Your task to perform on an android device: uninstall "Pinterest" Image 0: 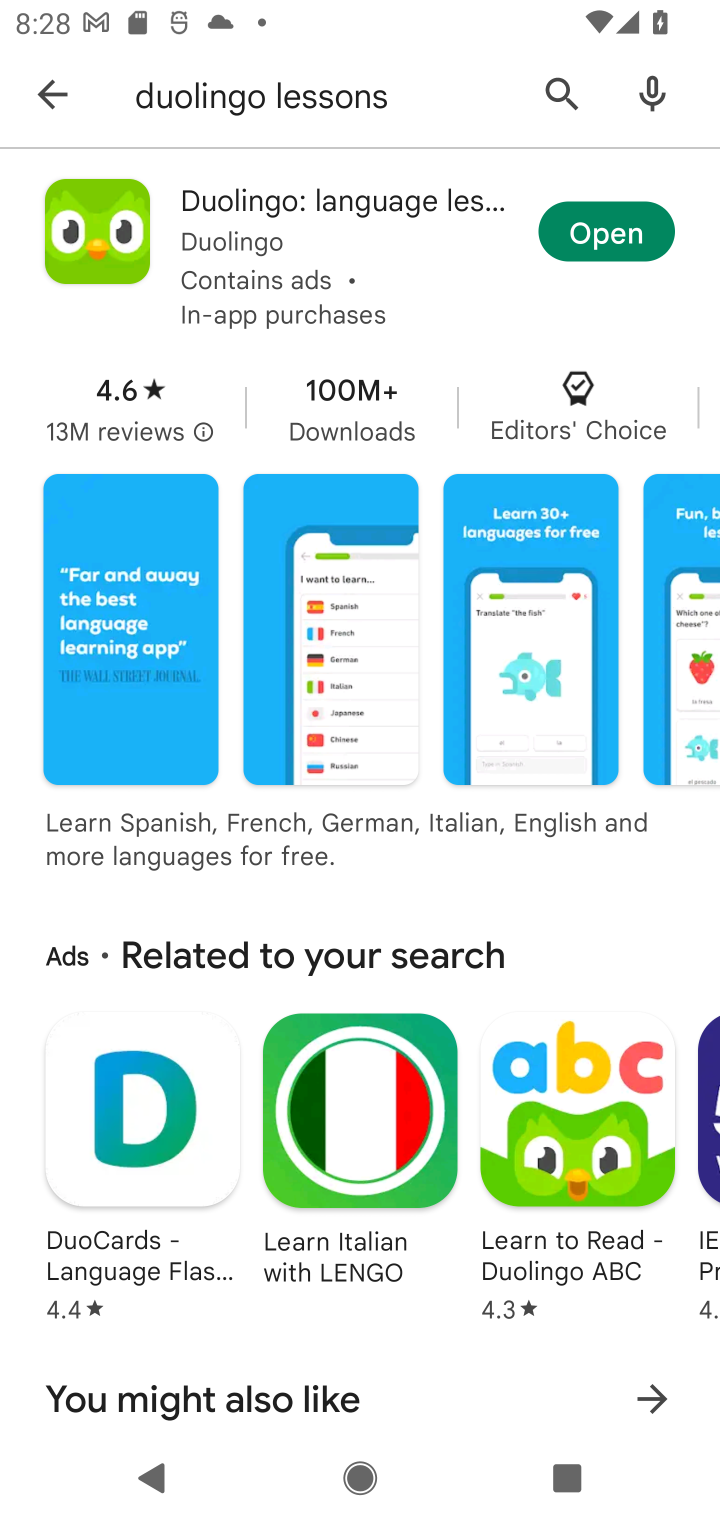
Step 0: click (571, 75)
Your task to perform on an android device: uninstall "Pinterest" Image 1: 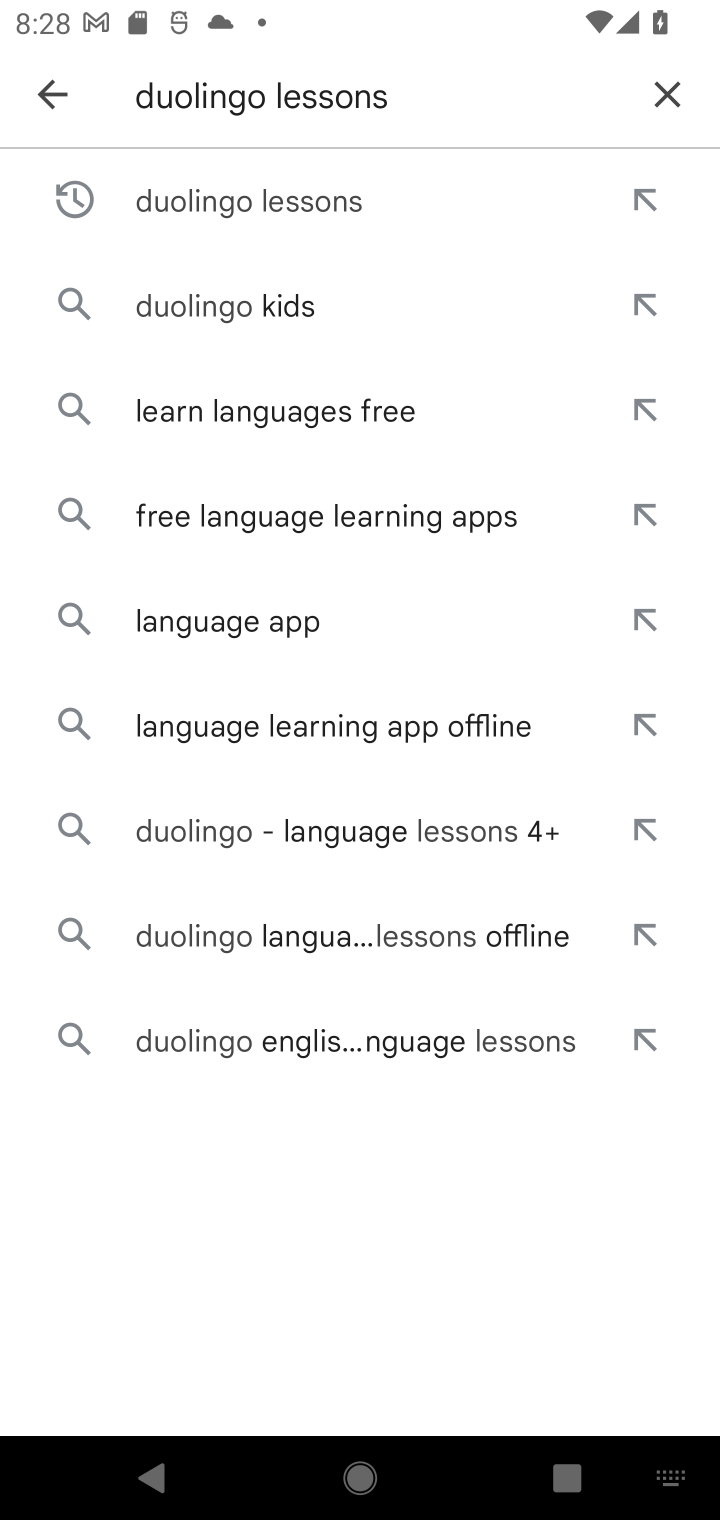
Step 1: click (680, 83)
Your task to perform on an android device: uninstall "Pinterest" Image 2: 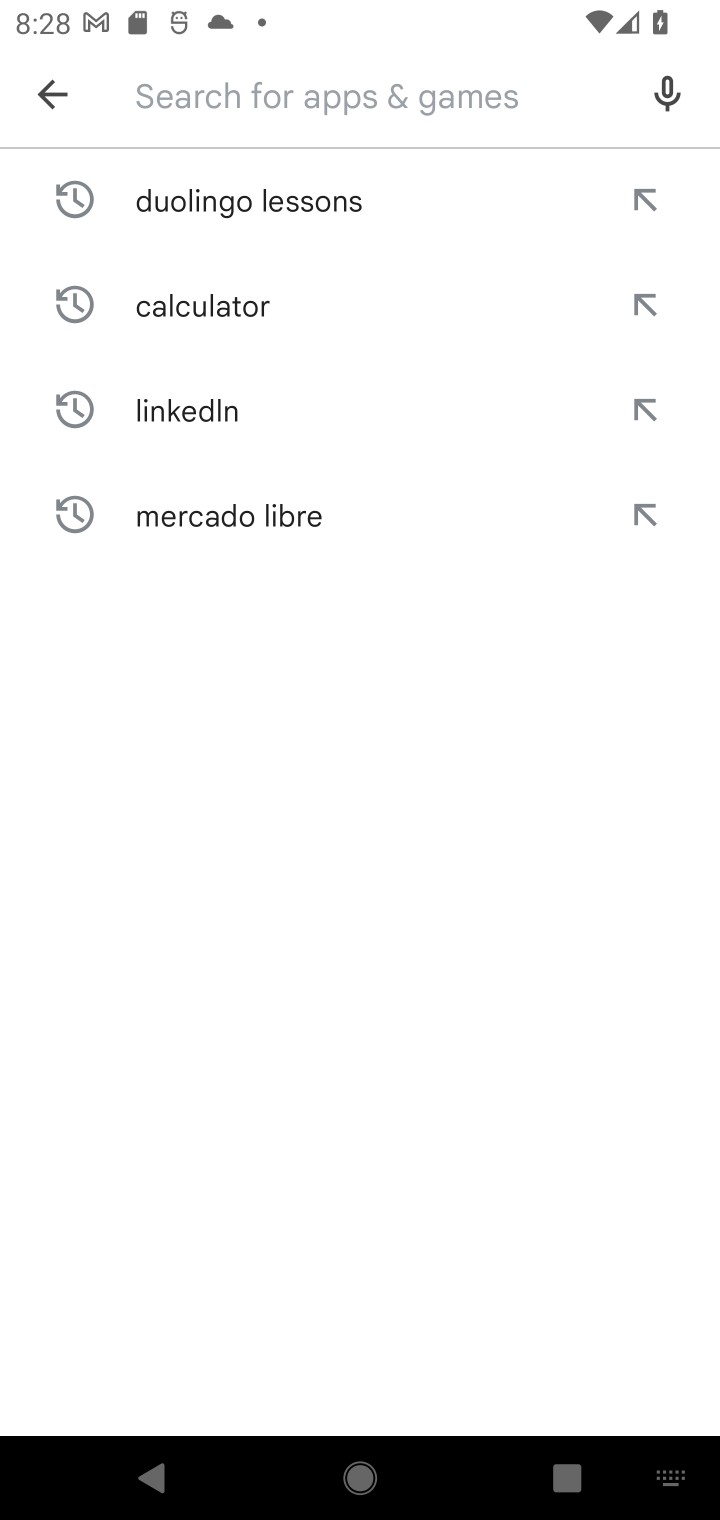
Step 2: click (260, 88)
Your task to perform on an android device: uninstall "Pinterest" Image 3: 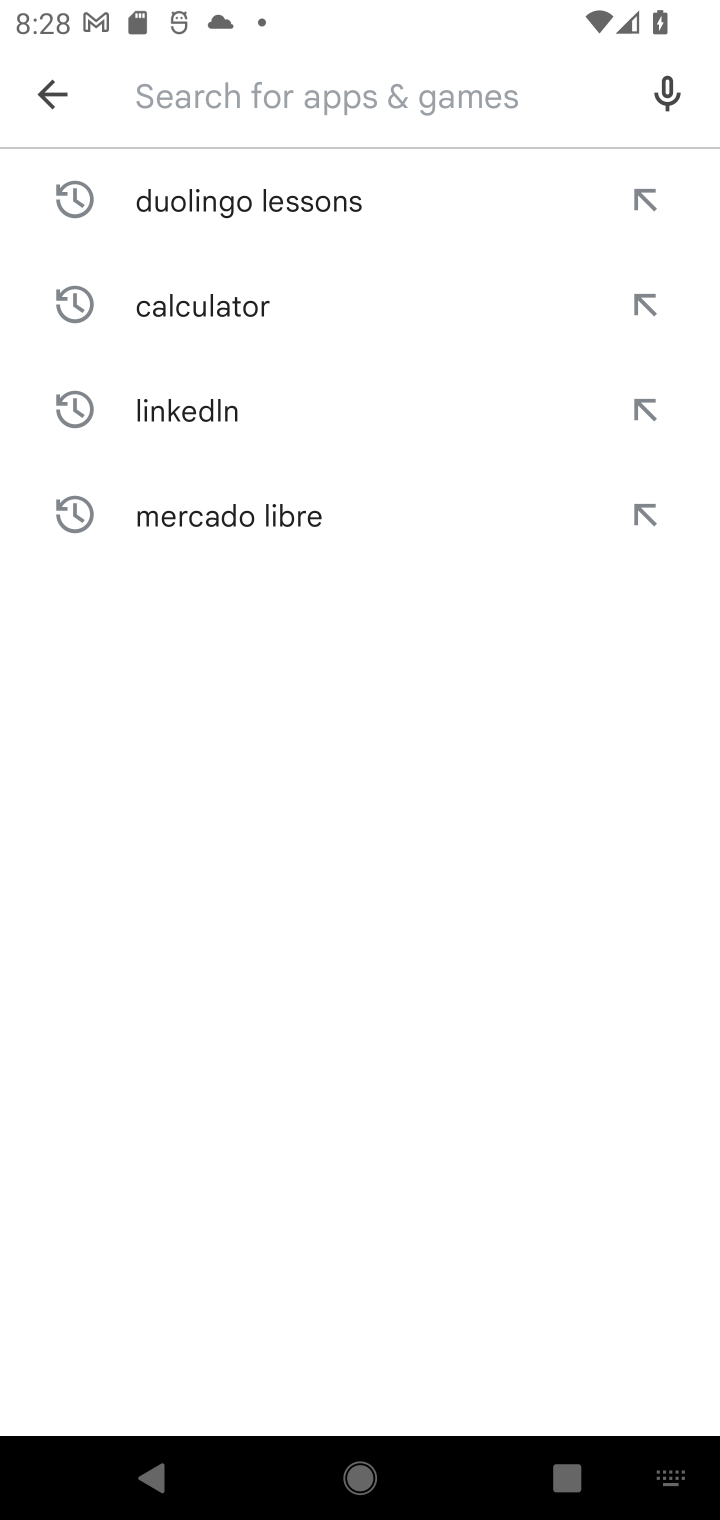
Step 3: type "pinterest"
Your task to perform on an android device: uninstall "Pinterest" Image 4: 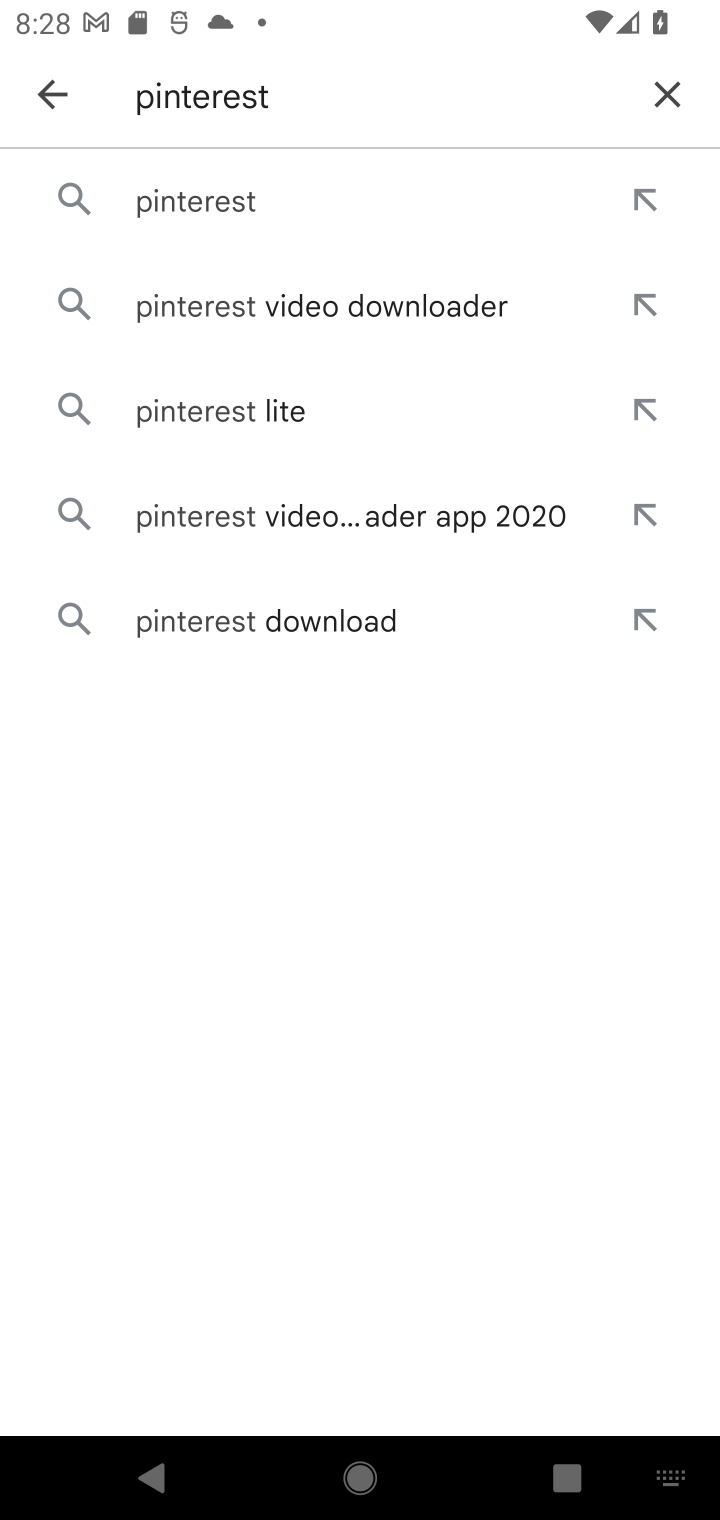
Step 4: click (198, 189)
Your task to perform on an android device: uninstall "Pinterest" Image 5: 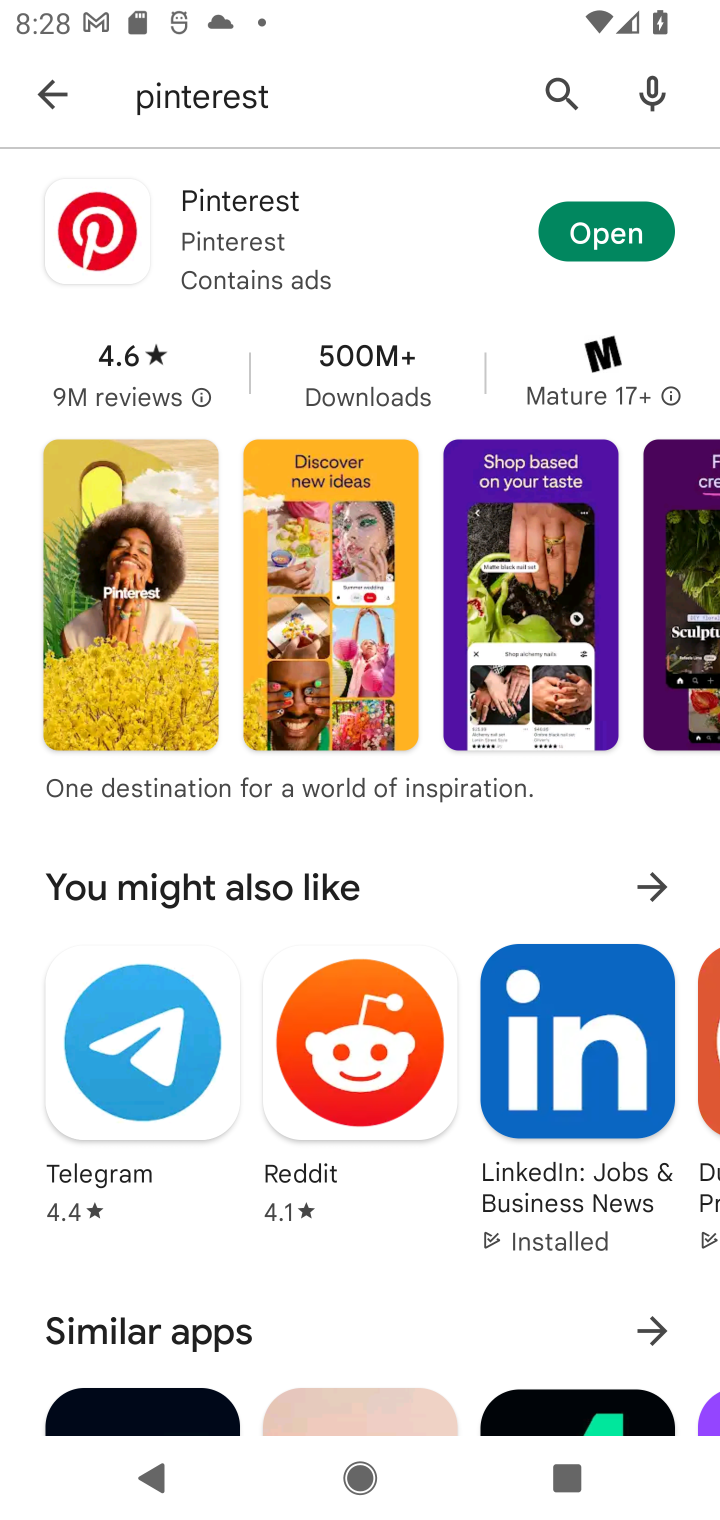
Step 5: click (293, 239)
Your task to perform on an android device: uninstall "Pinterest" Image 6: 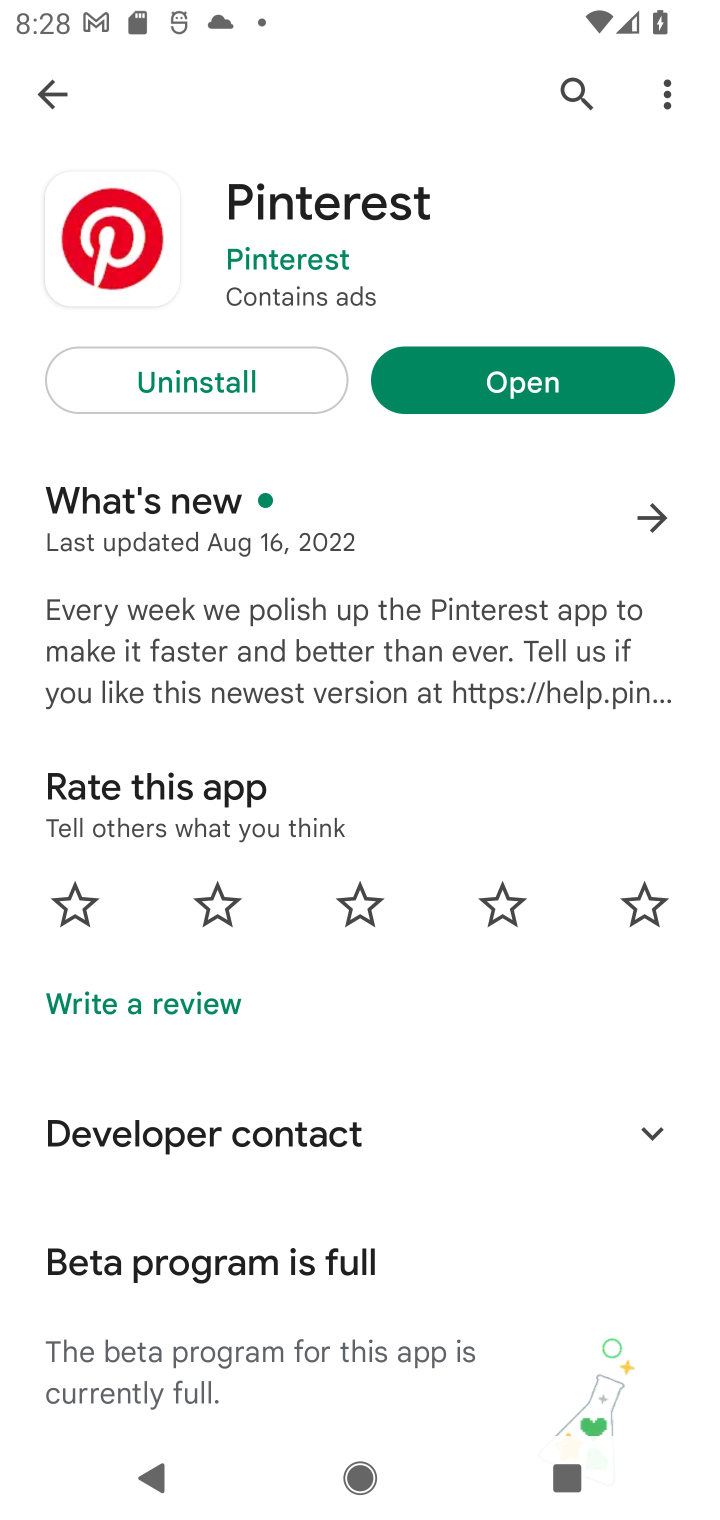
Step 6: click (198, 376)
Your task to perform on an android device: uninstall "Pinterest" Image 7: 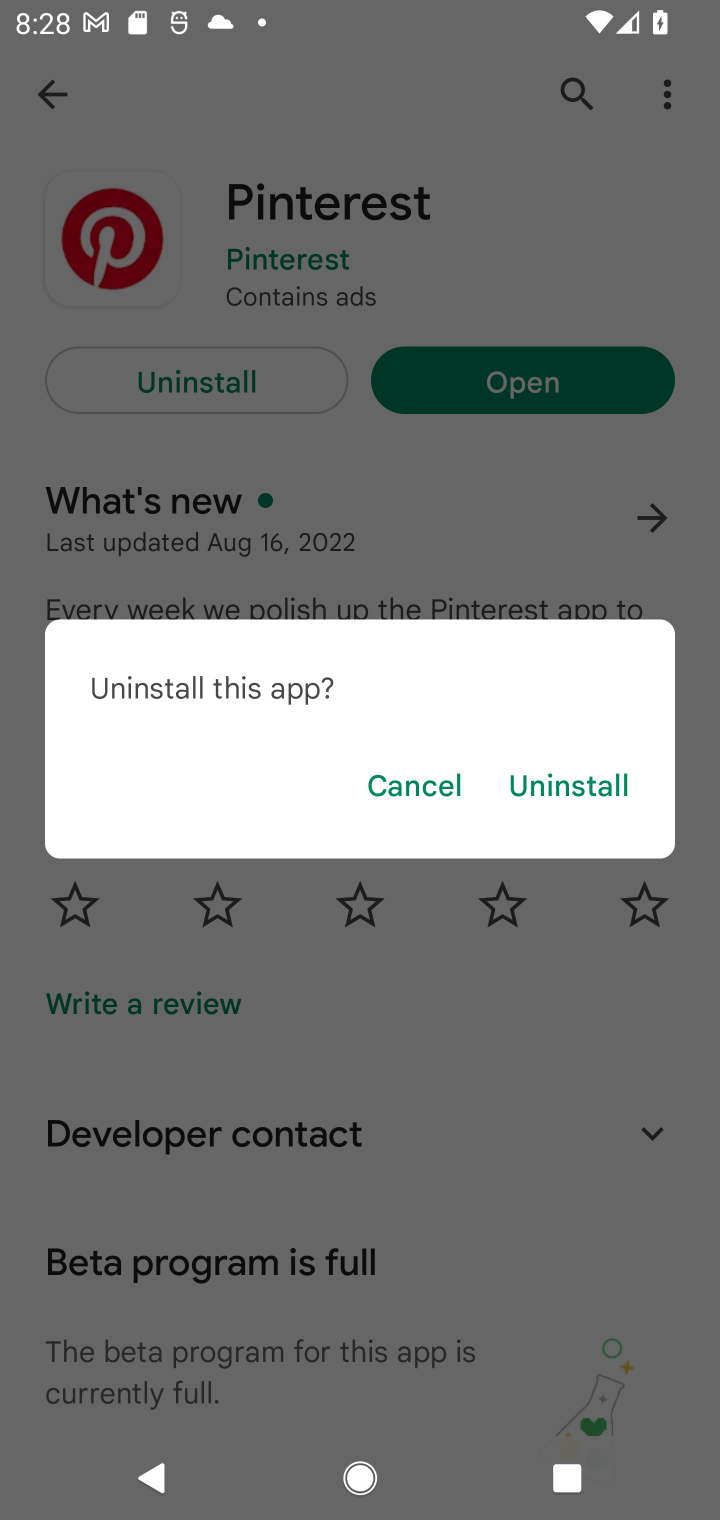
Step 7: click (603, 778)
Your task to perform on an android device: uninstall "Pinterest" Image 8: 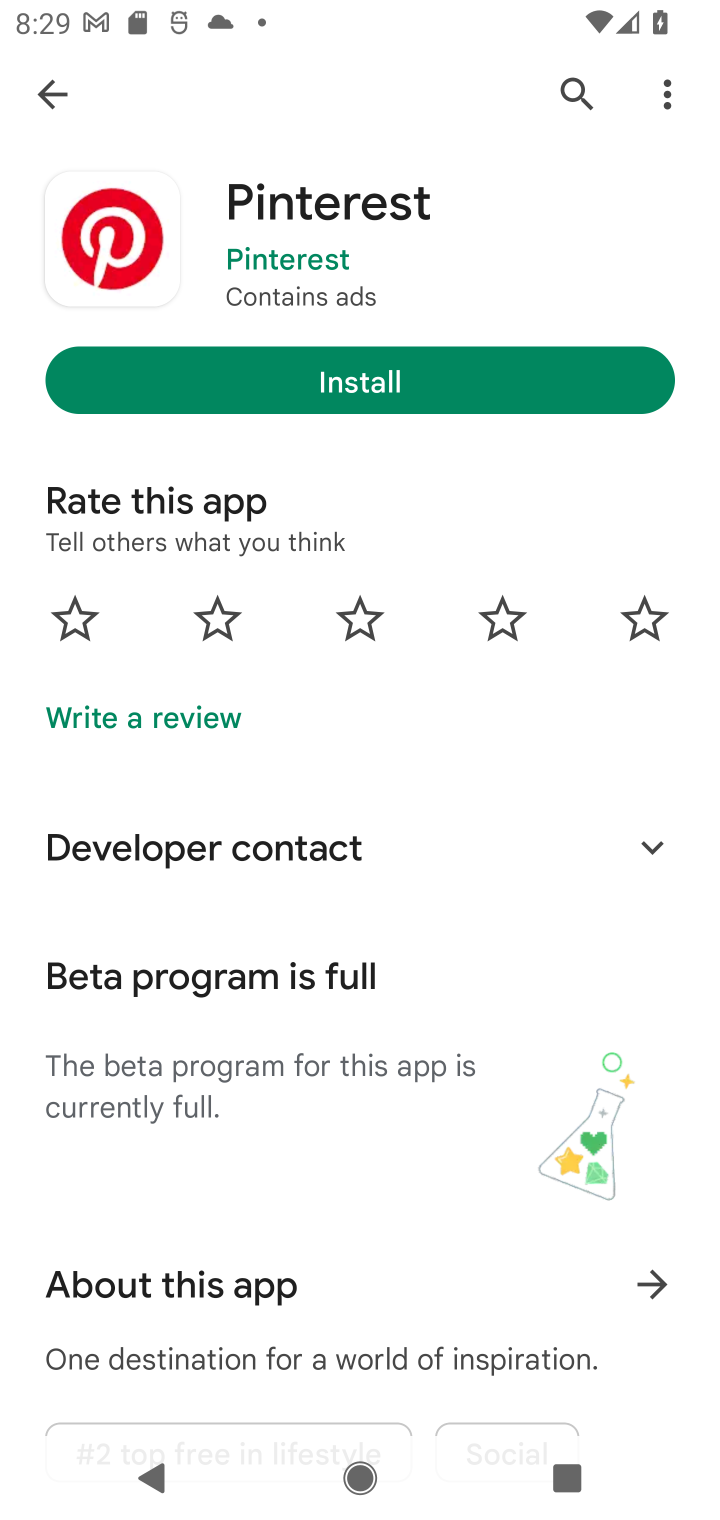
Step 8: task complete